Your task to perform on an android device: change text size in settings app Image 0: 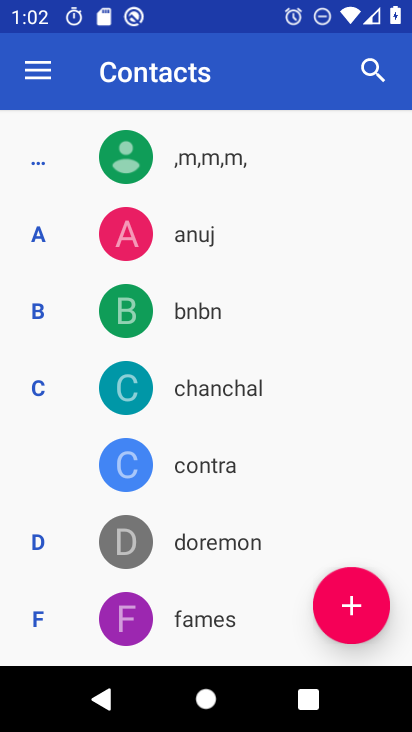
Step 0: press home button
Your task to perform on an android device: change text size in settings app Image 1: 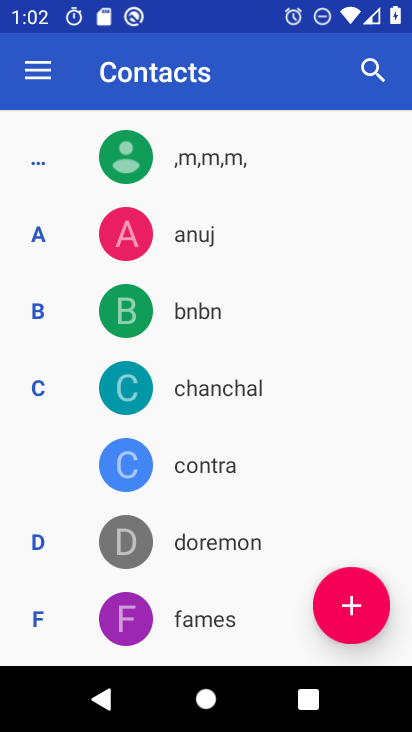
Step 1: press home button
Your task to perform on an android device: change text size in settings app Image 2: 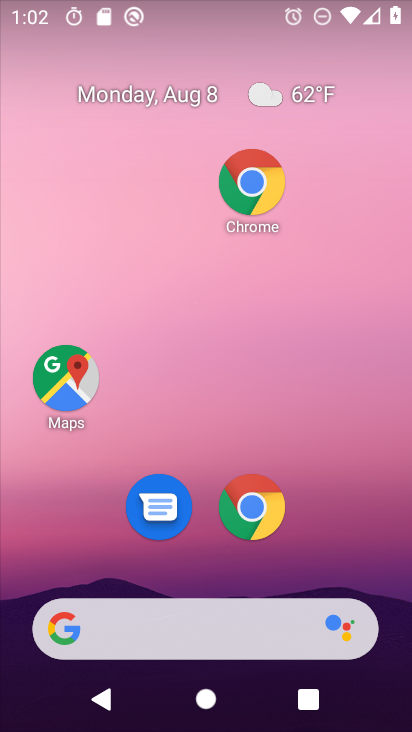
Step 2: drag from (323, 512) to (228, 73)
Your task to perform on an android device: change text size in settings app Image 3: 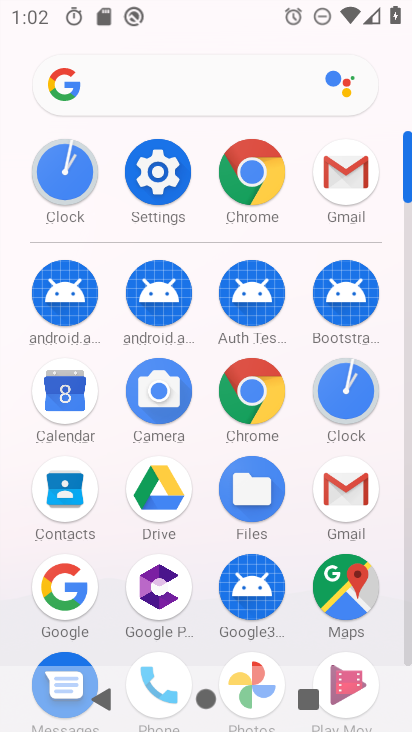
Step 3: click (164, 172)
Your task to perform on an android device: change text size in settings app Image 4: 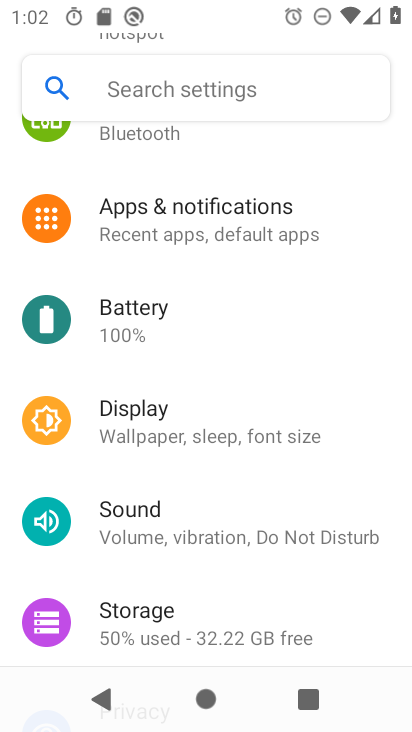
Step 4: click (172, 437)
Your task to perform on an android device: change text size in settings app Image 5: 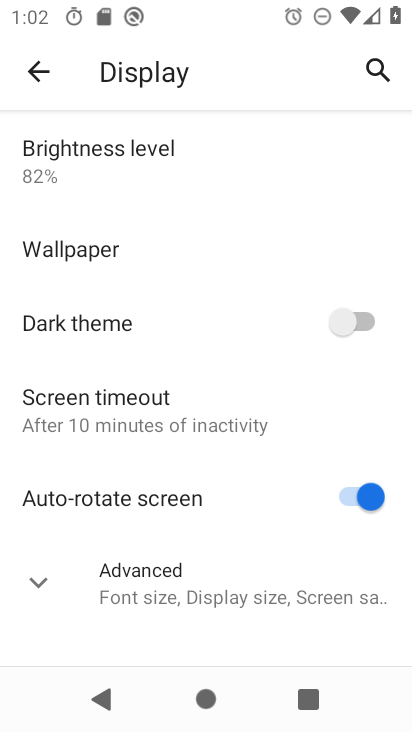
Step 5: click (162, 587)
Your task to perform on an android device: change text size in settings app Image 6: 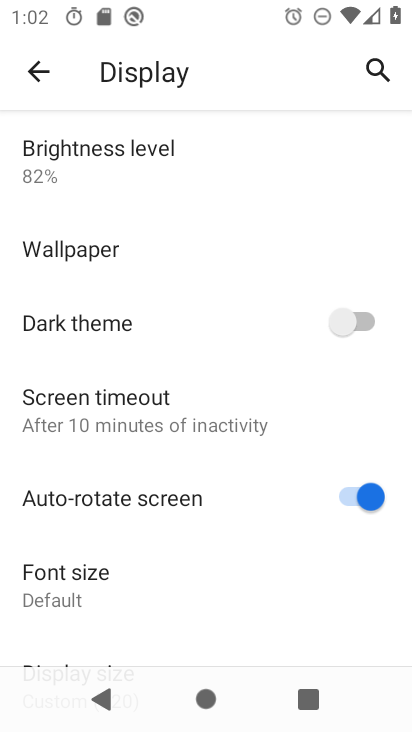
Step 6: drag from (226, 618) to (142, 182)
Your task to perform on an android device: change text size in settings app Image 7: 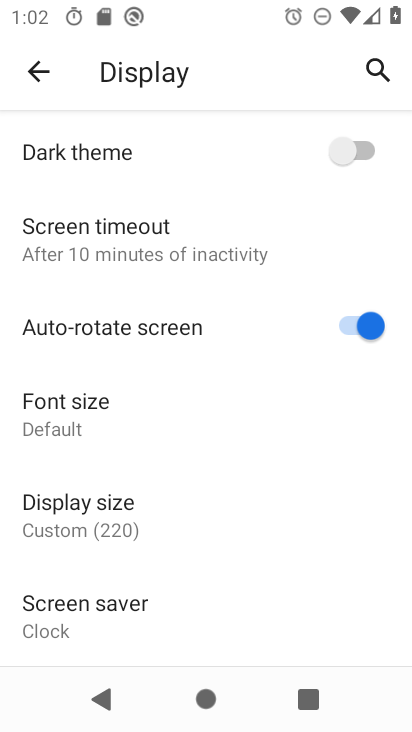
Step 7: click (74, 411)
Your task to perform on an android device: change text size in settings app Image 8: 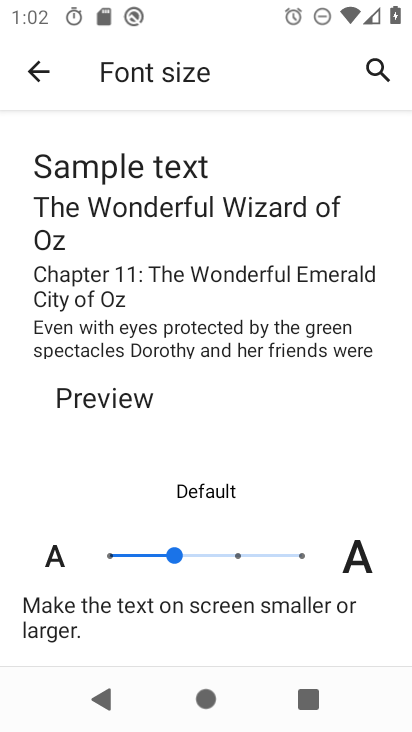
Step 8: click (137, 554)
Your task to perform on an android device: change text size in settings app Image 9: 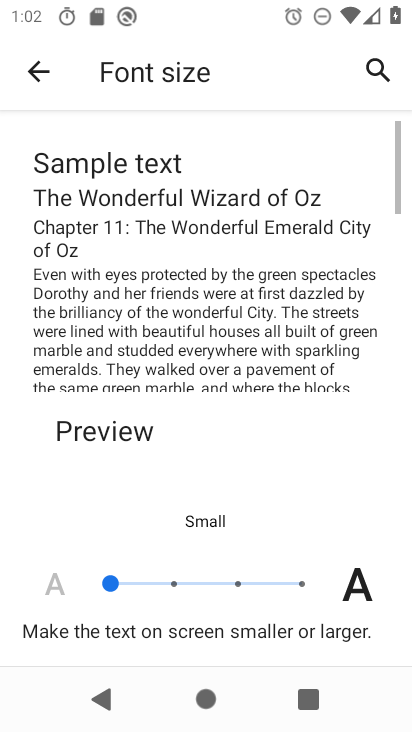
Step 9: task complete